Your task to perform on an android device: What is the news today? Image 0: 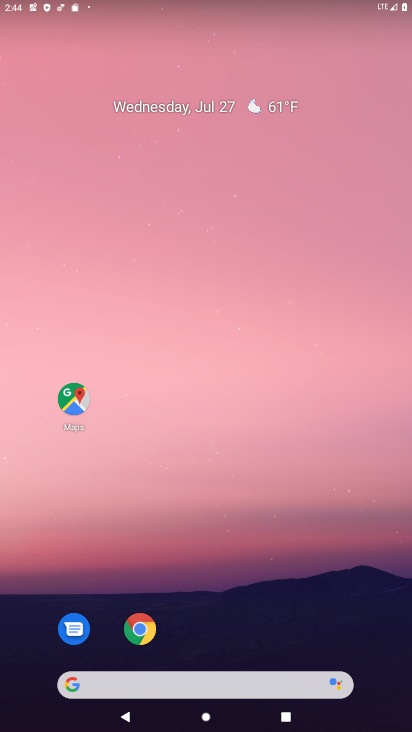
Step 0: press home button
Your task to perform on an android device: What is the news today? Image 1: 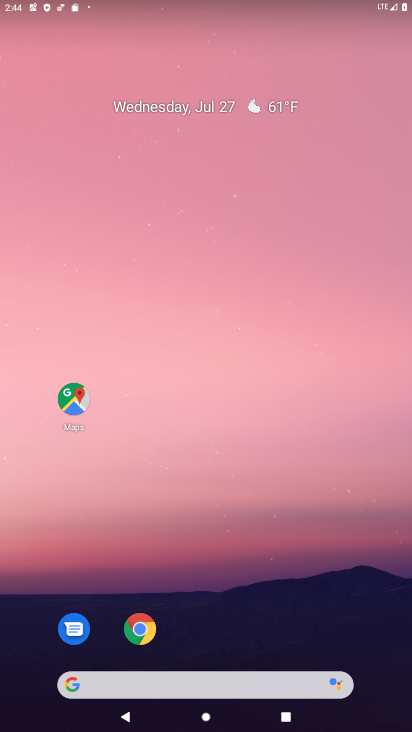
Step 1: drag from (178, 680) to (408, 17)
Your task to perform on an android device: What is the news today? Image 2: 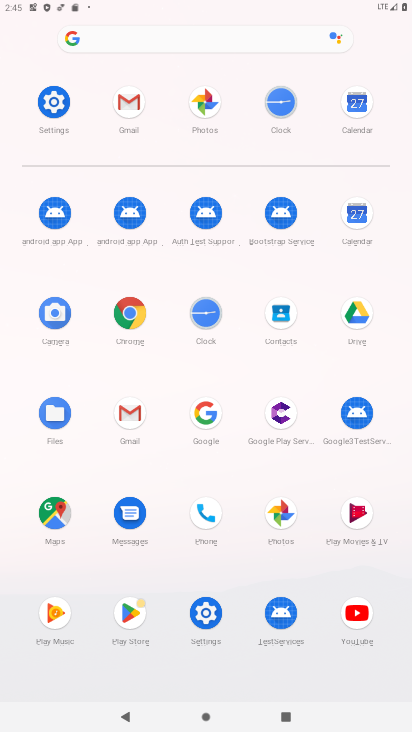
Step 2: click (204, 412)
Your task to perform on an android device: What is the news today? Image 3: 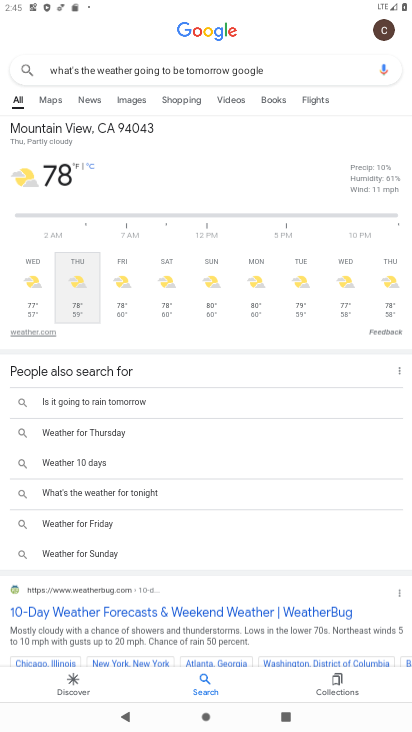
Step 3: click (285, 74)
Your task to perform on an android device: What is the news today? Image 4: 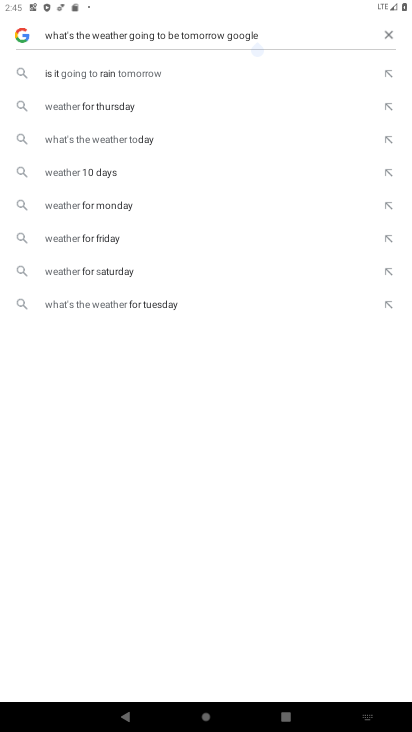
Step 4: press back button
Your task to perform on an android device: What is the news today? Image 5: 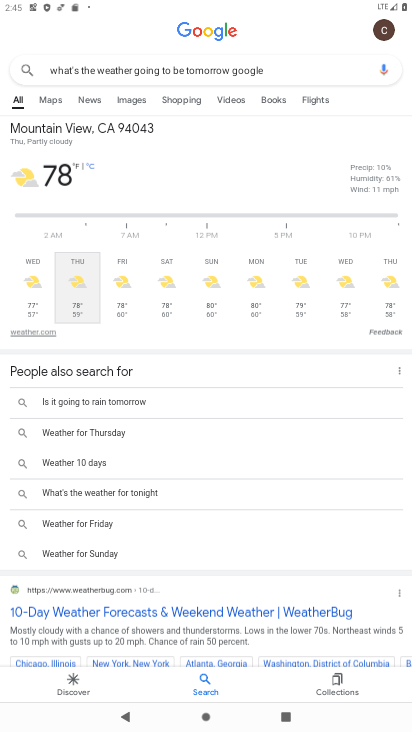
Step 5: click (335, 68)
Your task to perform on an android device: What is the news today? Image 6: 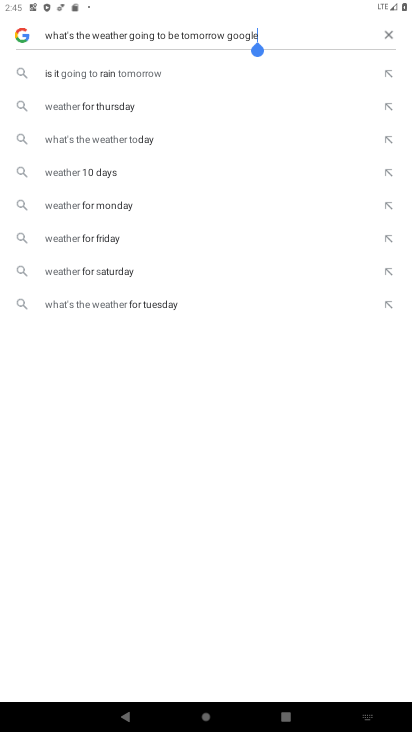
Step 6: click (389, 32)
Your task to perform on an android device: What is the news today? Image 7: 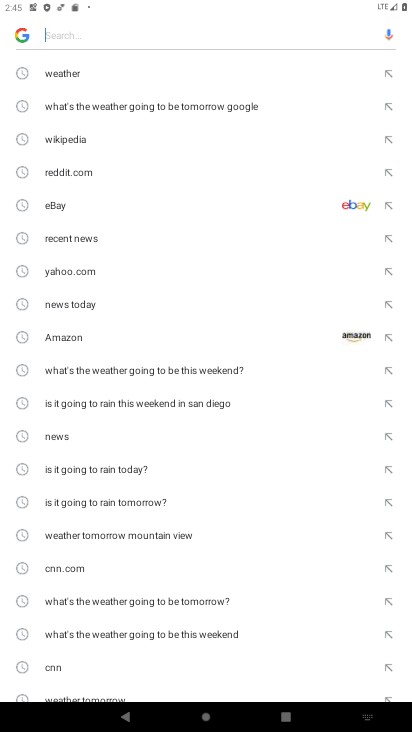
Step 7: click (85, 305)
Your task to perform on an android device: What is the news today? Image 8: 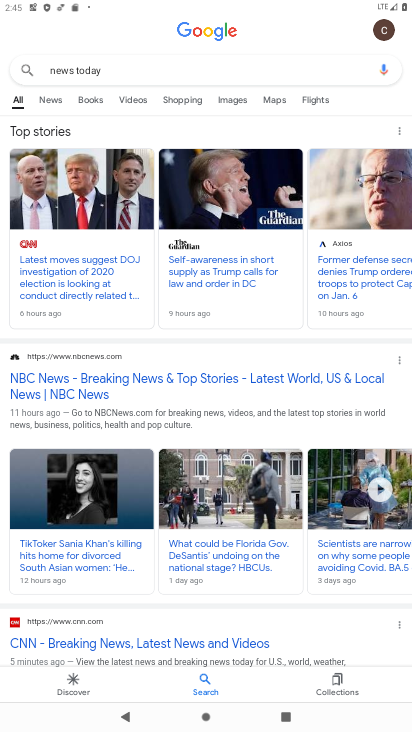
Step 8: click (79, 281)
Your task to perform on an android device: What is the news today? Image 9: 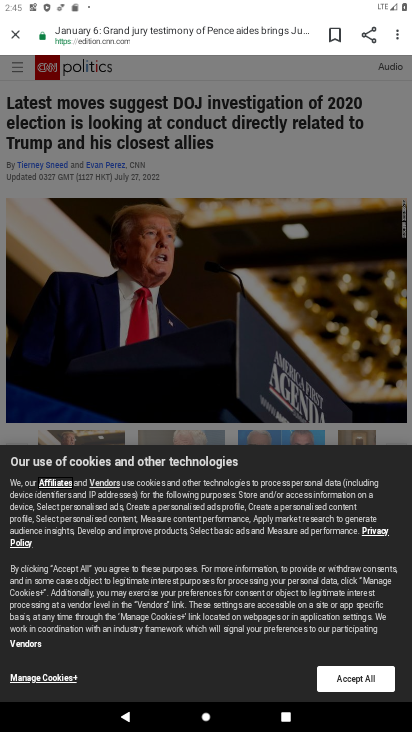
Step 9: click (345, 676)
Your task to perform on an android device: What is the news today? Image 10: 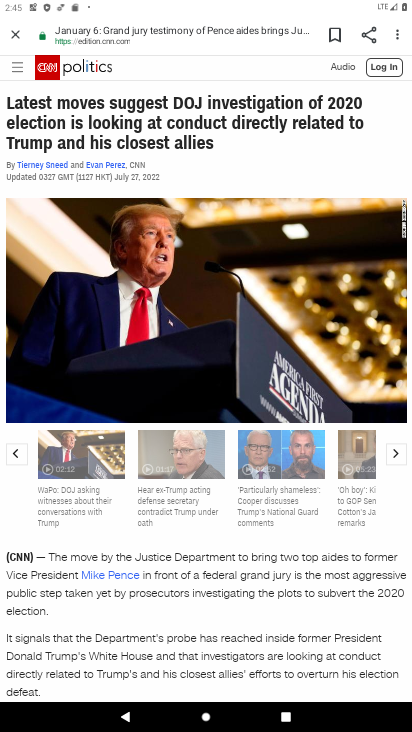
Step 10: task complete